Your task to perform on an android device: Open calendar and show me the fourth week of next month Image 0: 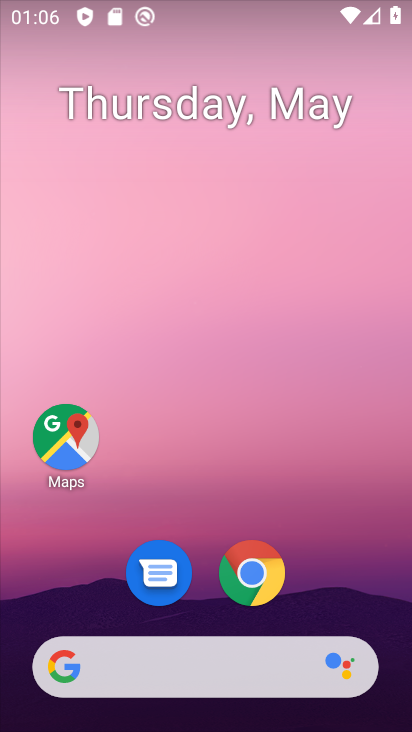
Step 0: drag from (333, 598) to (296, 115)
Your task to perform on an android device: Open calendar and show me the fourth week of next month Image 1: 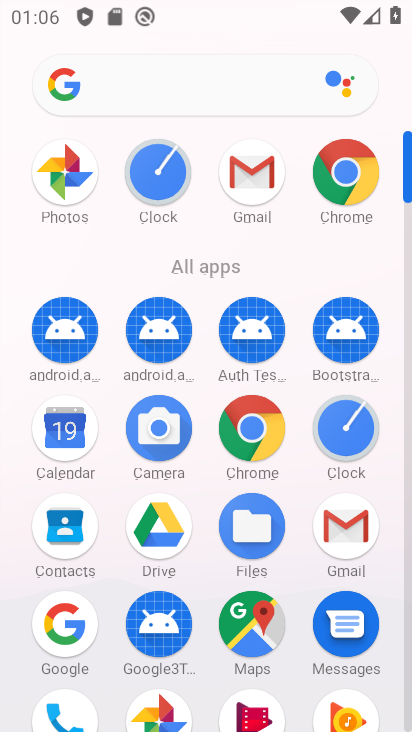
Step 1: click (68, 447)
Your task to perform on an android device: Open calendar and show me the fourth week of next month Image 2: 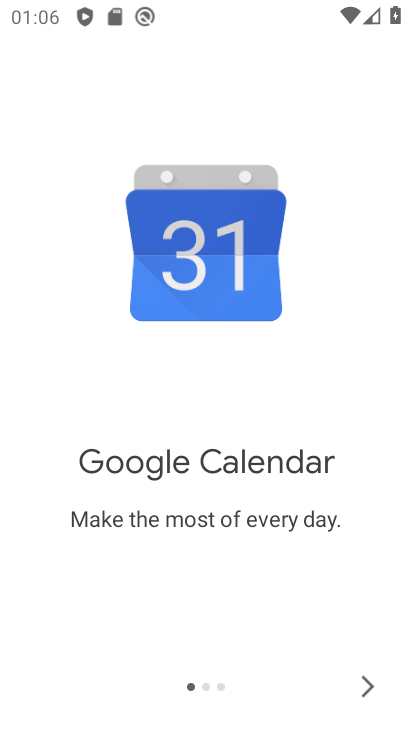
Step 2: click (360, 699)
Your task to perform on an android device: Open calendar and show me the fourth week of next month Image 3: 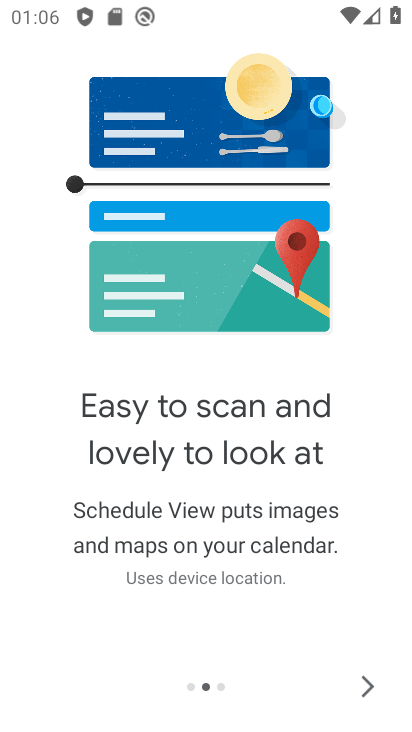
Step 3: click (360, 699)
Your task to perform on an android device: Open calendar and show me the fourth week of next month Image 4: 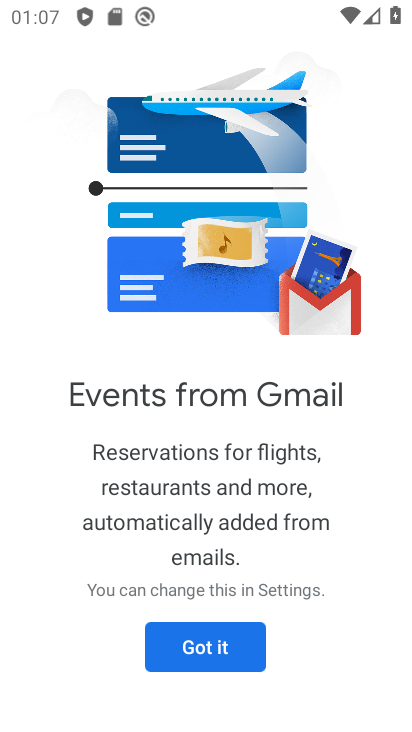
Step 4: press home button
Your task to perform on an android device: Open calendar and show me the fourth week of next month Image 5: 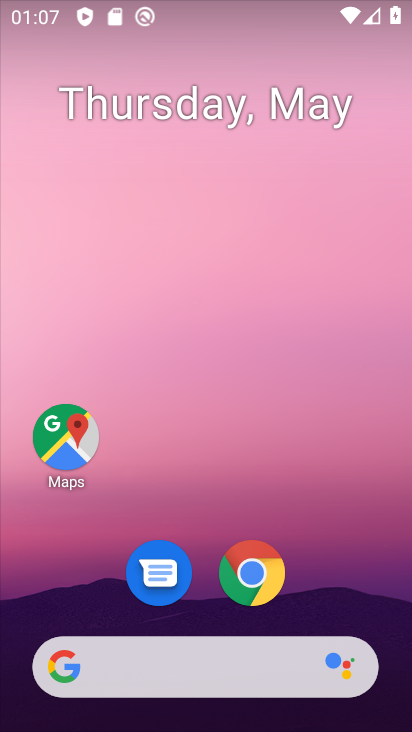
Step 5: drag from (342, 588) to (316, 242)
Your task to perform on an android device: Open calendar and show me the fourth week of next month Image 6: 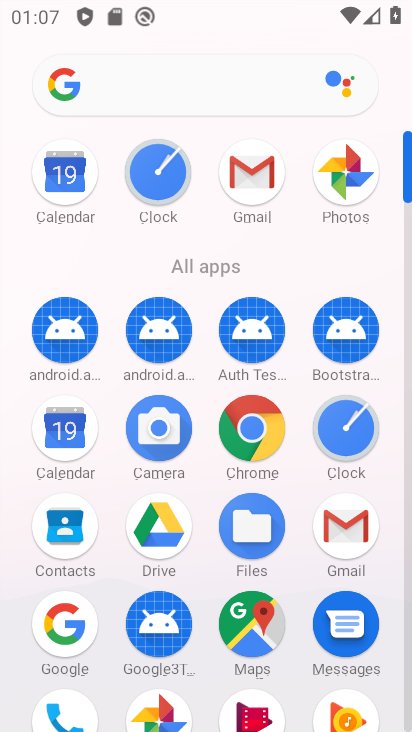
Step 6: click (66, 525)
Your task to perform on an android device: Open calendar and show me the fourth week of next month Image 7: 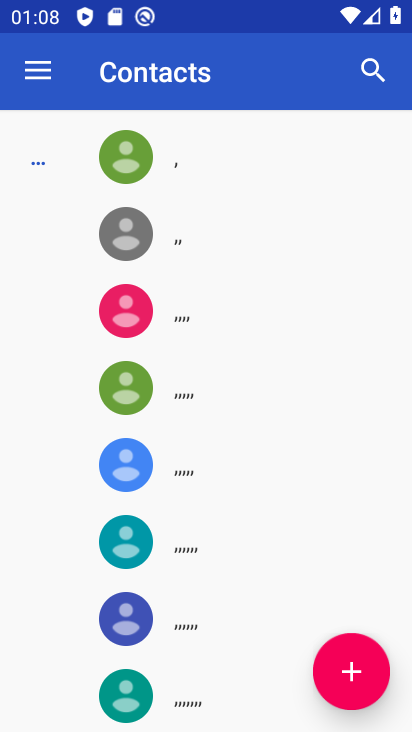
Step 7: press home button
Your task to perform on an android device: Open calendar and show me the fourth week of next month Image 8: 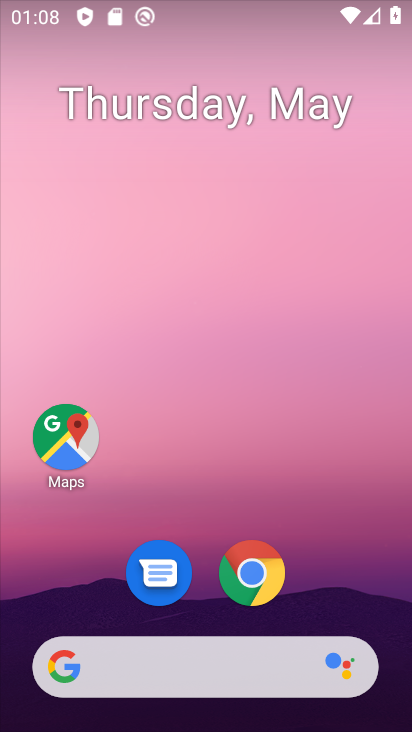
Step 8: drag from (234, 428) to (168, 35)
Your task to perform on an android device: Open calendar and show me the fourth week of next month Image 9: 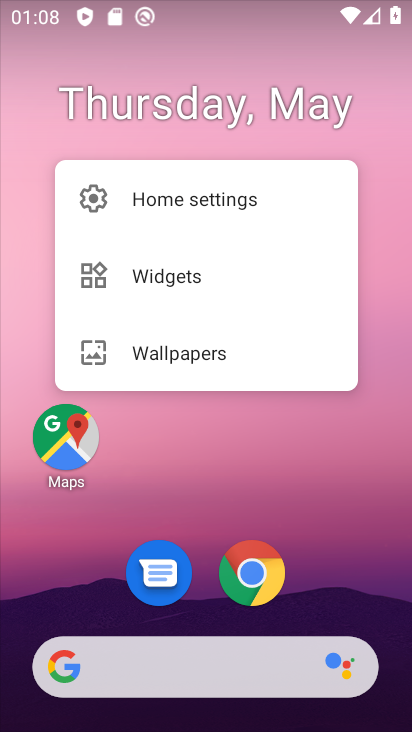
Step 9: click (284, 424)
Your task to perform on an android device: Open calendar and show me the fourth week of next month Image 10: 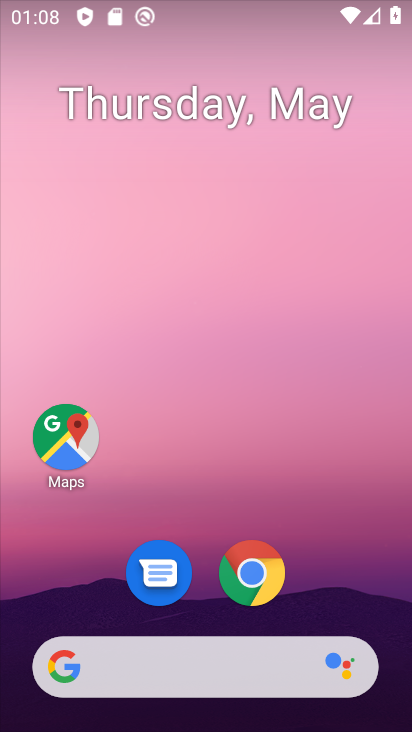
Step 10: drag from (284, 424) to (299, 93)
Your task to perform on an android device: Open calendar and show me the fourth week of next month Image 11: 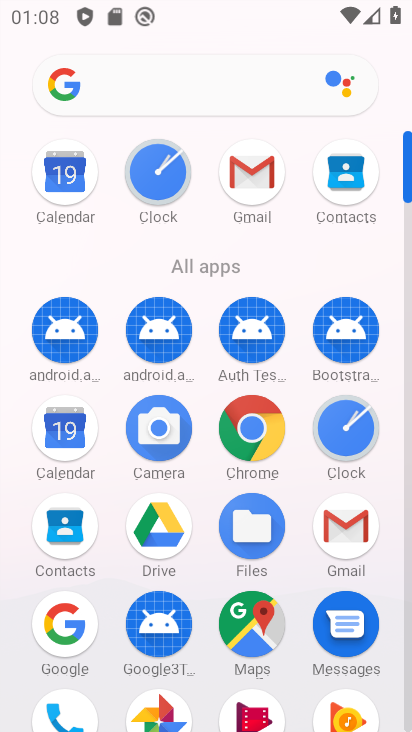
Step 11: click (51, 450)
Your task to perform on an android device: Open calendar and show me the fourth week of next month Image 12: 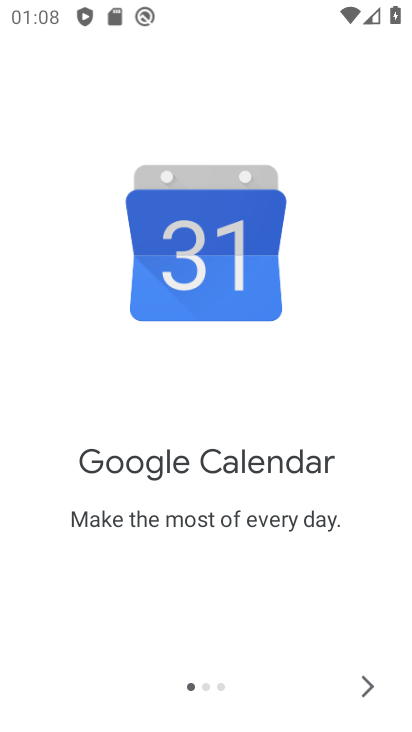
Step 12: click (379, 675)
Your task to perform on an android device: Open calendar and show me the fourth week of next month Image 13: 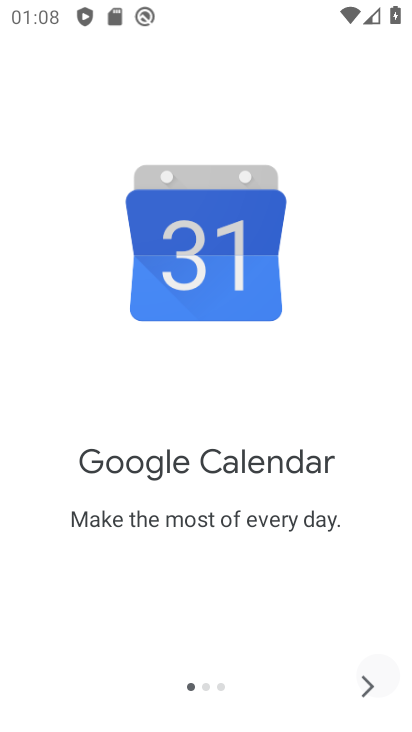
Step 13: click (379, 675)
Your task to perform on an android device: Open calendar and show me the fourth week of next month Image 14: 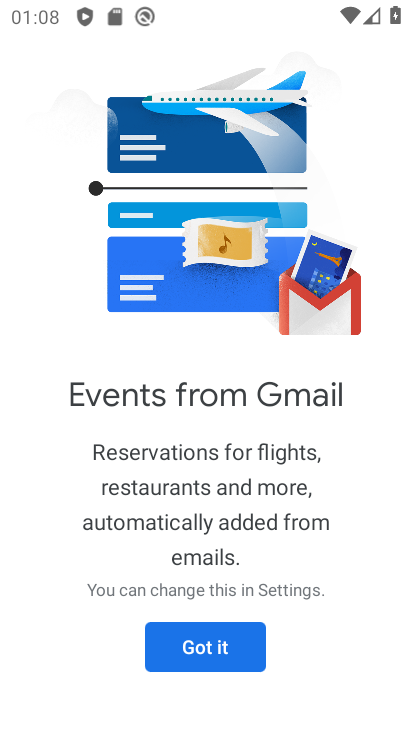
Step 14: click (188, 655)
Your task to perform on an android device: Open calendar and show me the fourth week of next month Image 15: 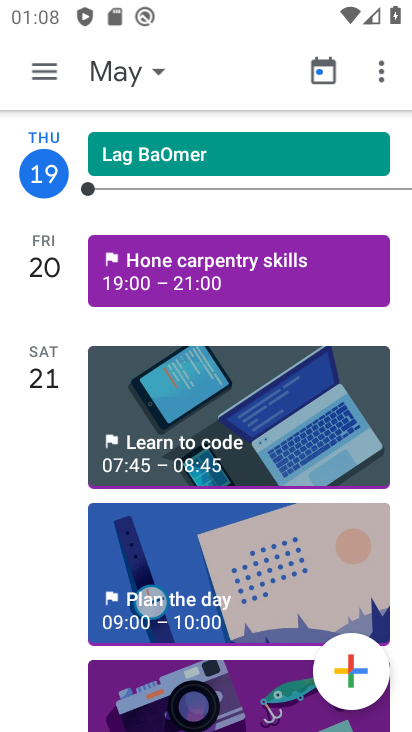
Step 15: click (149, 78)
Your task to perform on an android device: Open calendar and show me the fourth week of next month Image 16: 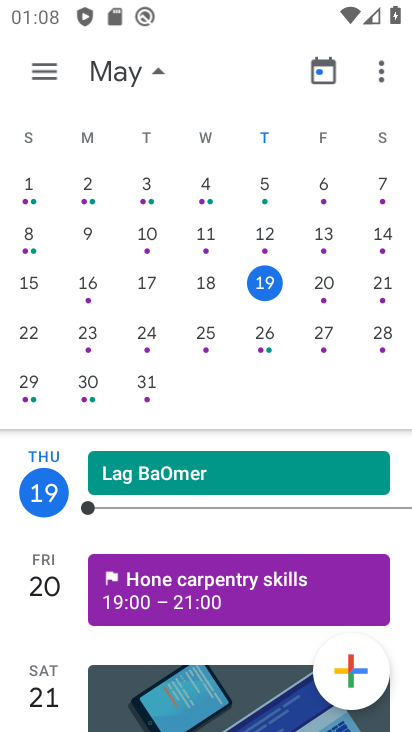
Step 16: drag from (339, 276) to (5, 259)
Your task to perform on an android device: Open calendar and show me the fourth week of next month Image 17: 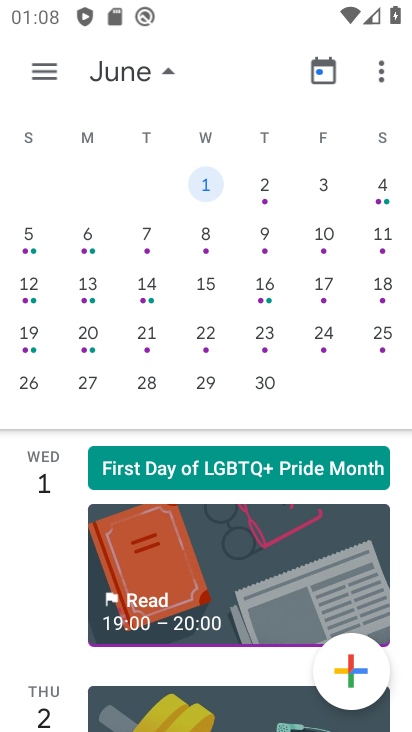
Step 17: click (192, 330)
Your task to perform on an android device: Open calendar and show me the fourth week of next month Image 18: 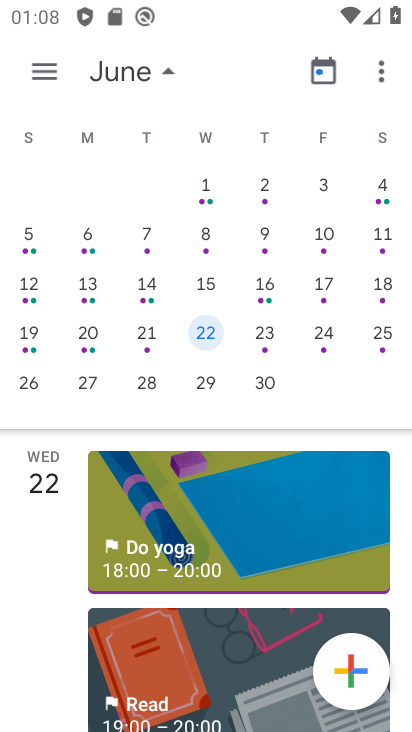
Step 18: task complete